Your task to perform on an android device: Open eBay Image 0: 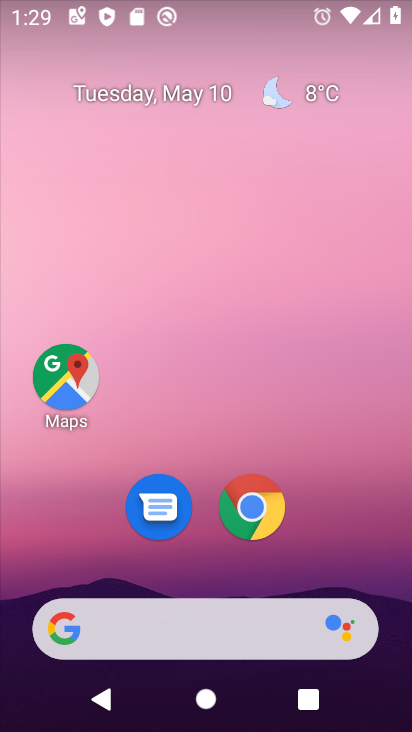
Step 0: drag from (224, 729) to (219, 267)
Your task to perform on an android device: Open eBay Image 1: 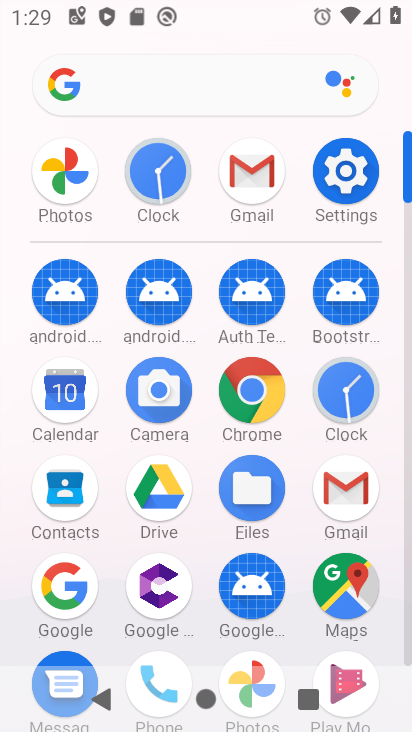
Step 1: click (260, 389)
Your task to perform on an android device: Open eBay Image 2: 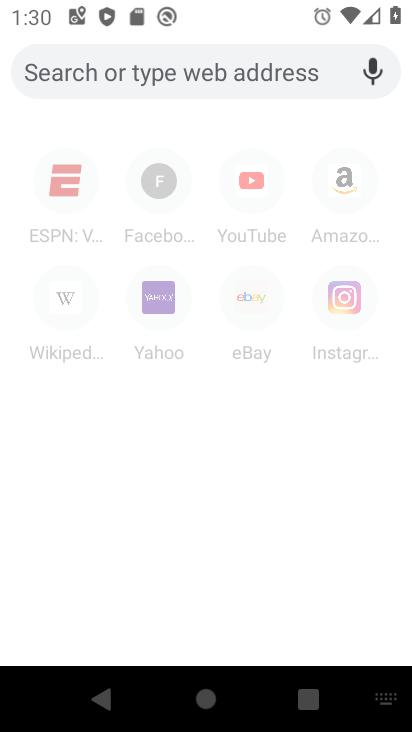
Step 2: type "eBay"
Your task to perform on an android device: Open eBay Image 3: 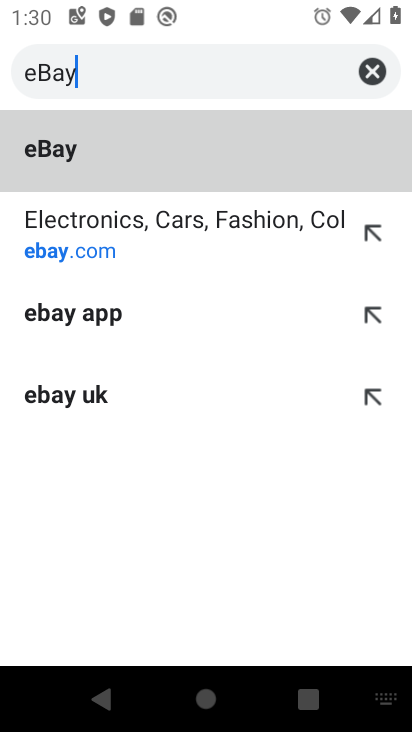
Step 3: type ""
Your task to perform on an android device: Open eBay Image 4: 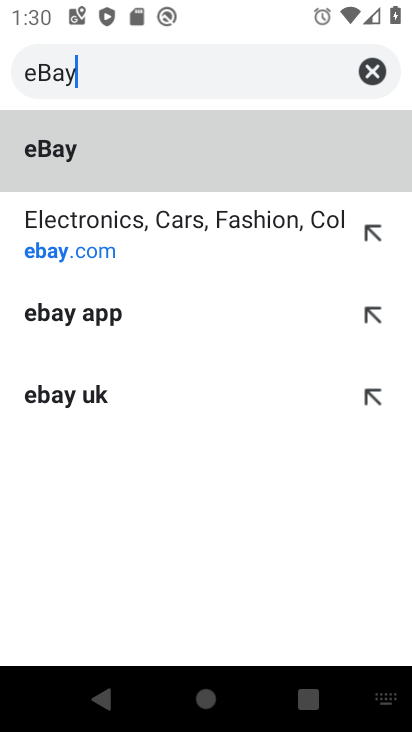
Step 4: click (70, 148)
Your task to perform on an android device: Open eBay Image 5: 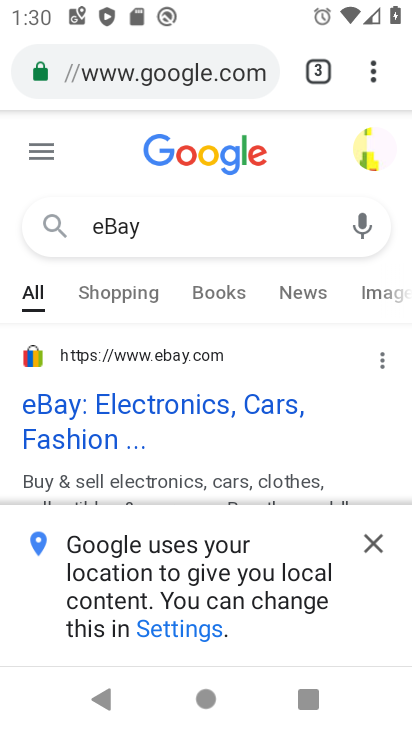
Step 5: click (97, 402)
Your task to perform on an android device: Open eBay Image 6: 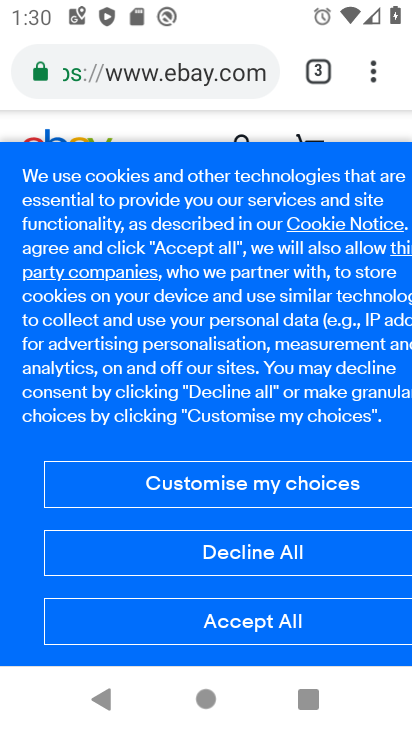
Step 6: task complete